Your task to perform on an android device: Open Google Chrome and open the bookmarks view Image 0: 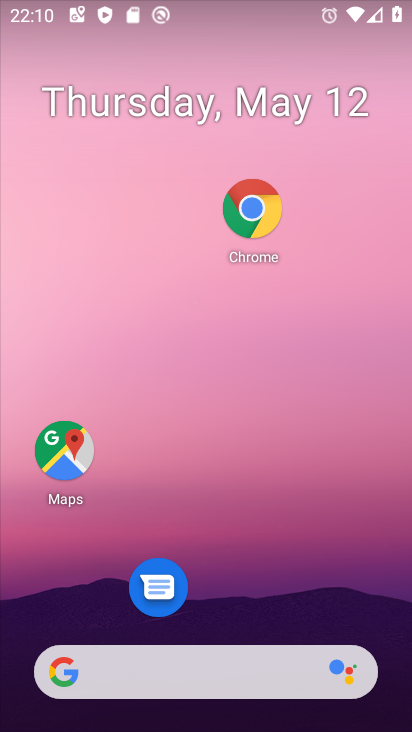
Step 0: click (259, 195)
Your task to perform on an android device: Open Google Chrome and open the bookmarks view Image 1: 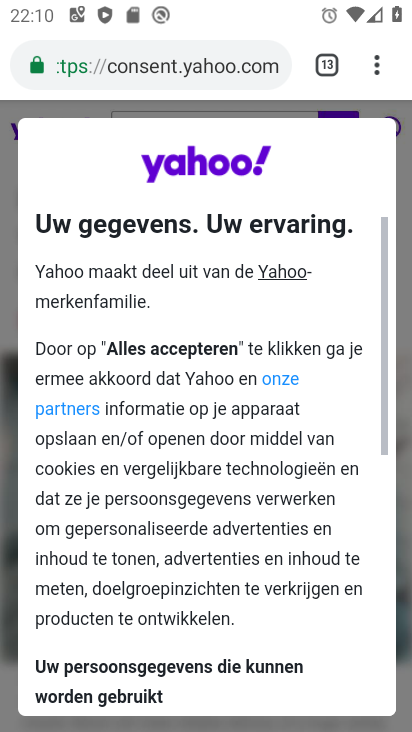
Step 1: click (358, 58)
Your task to perform on an android device: Open Google Chrome and open the bookmarks view Image 2: 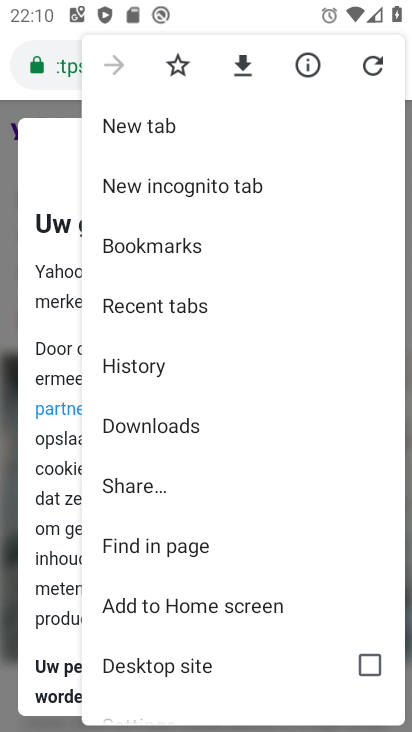
Step 2: click (148, 242)
Your task to perform on an android device: Open Google Chrome and open the bookmarks view Image 3: 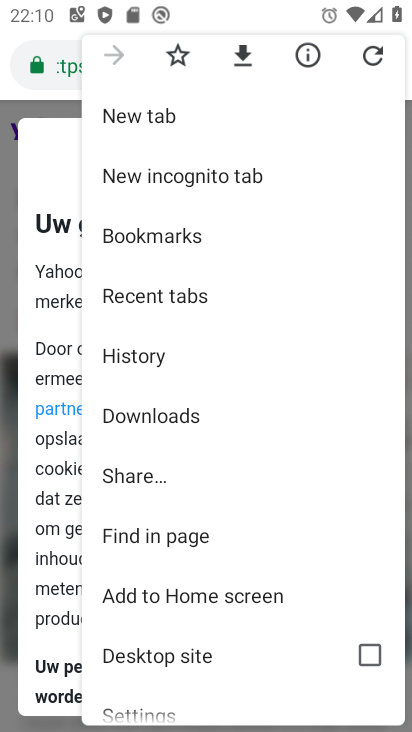
Step 3: click (173, 234)
Your task to perform on an android device: Open Google Chrome and open the bookmarks view Image 4: 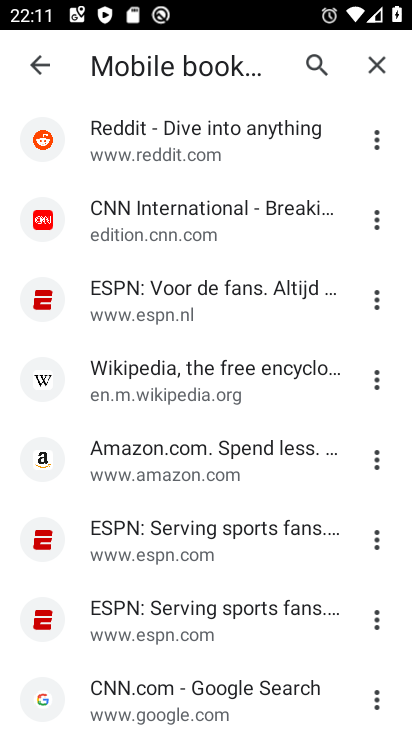
Step 4: task complete